Your task to perform on an android device: search for starred emails in the gmail app Image 0: 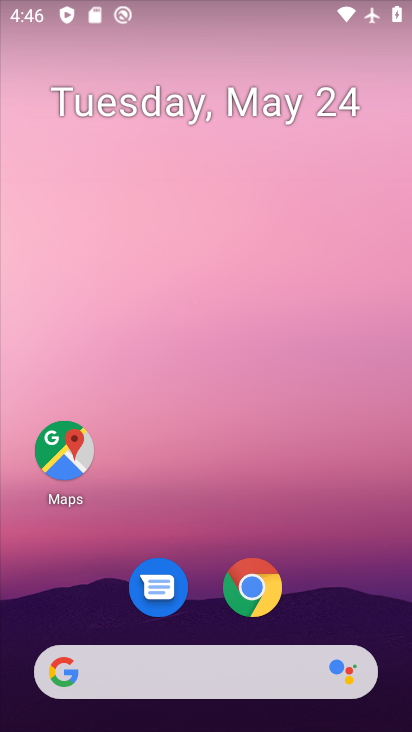
Step 0: click (70, 448)
Your task to perform on an android device: search for starred emails in the gmail app Image 1: 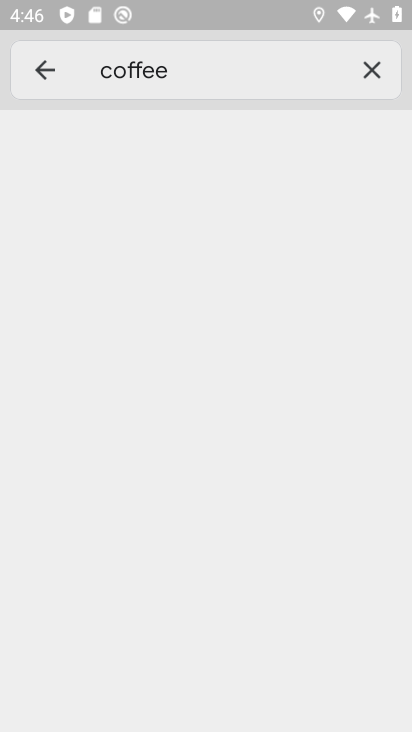
Step 1: press home button
Your task to perform on an android device: search for starred emails in the gmail app Image 2: 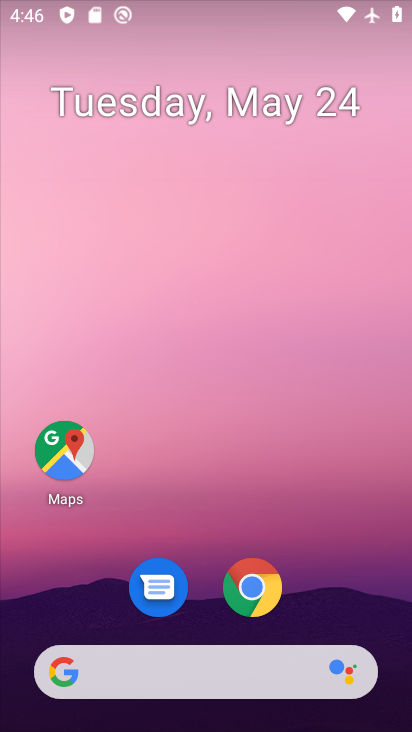
Step 2: drag from (250, 286) to (209, 11)
Your task to perform on an android device: search for starred emails in the gmail app Image 3: 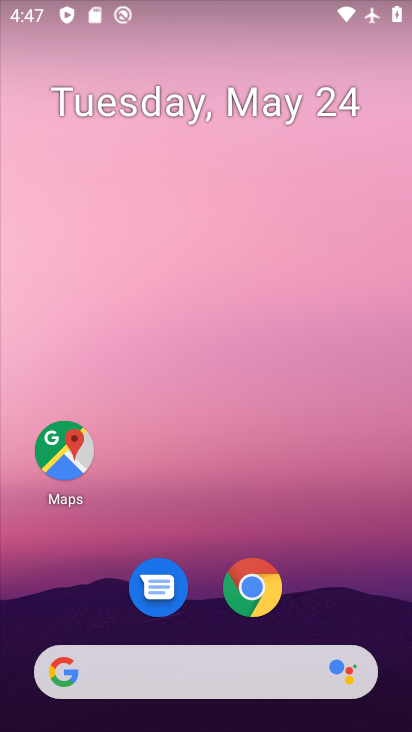
Step 3: drag from (325, 571) to (219, 8)
Your task to perform on an android device: search for starred emails in the gmail app Image 4: 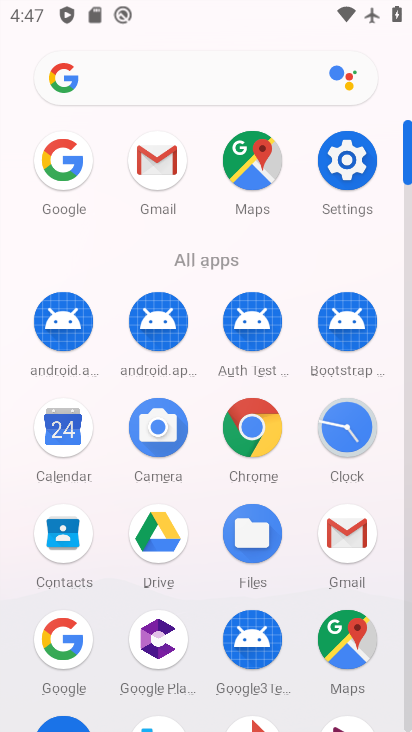
Step 4: click (351, 534)
Your task to perform on an android device: search for starred emails in the gmail app Image 5: 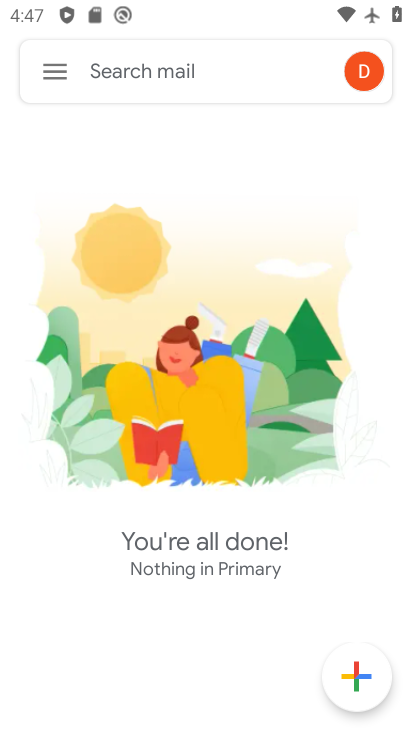
Step 5: click (200, 72)
Your task to perform on an android device: search for starred emails in the gmail app Image 6: 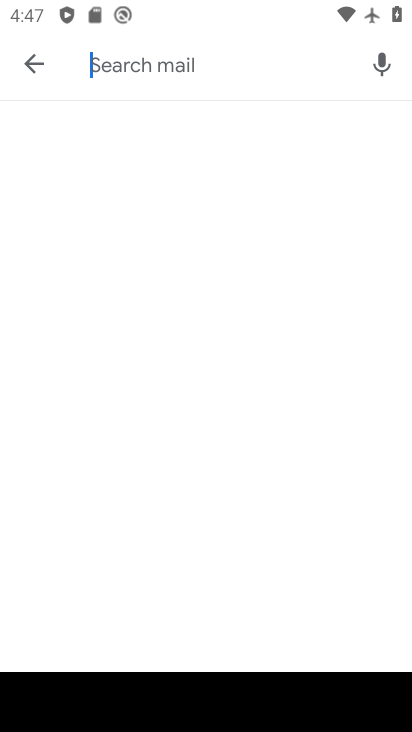
Step 6: type "starred"
Your task to perform on an android device: search for starred emails in the gmail app Image 7: 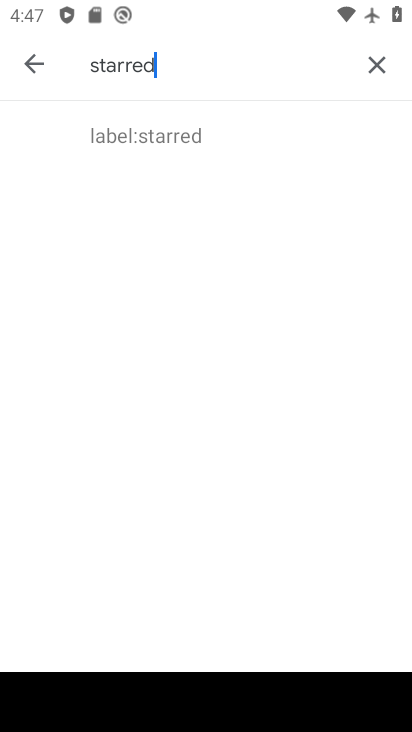
Step 7: click (192, 134)
Your task to perform on an android device: search for starred emails in the gmail app Image 8: 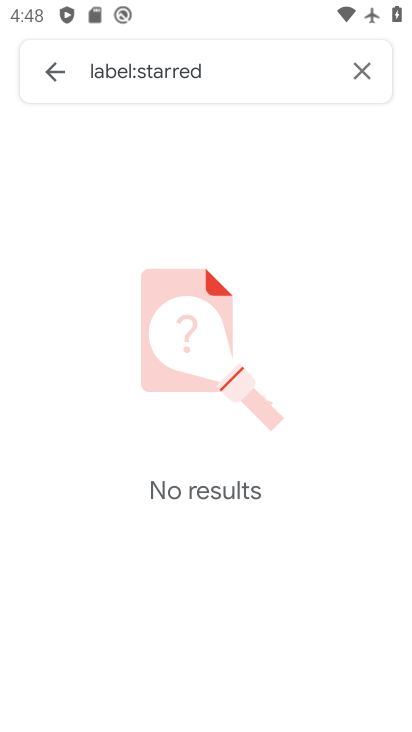
Step 8: task complete